Your task to perform on an android device: delete a single message in the gmail app Image 0: 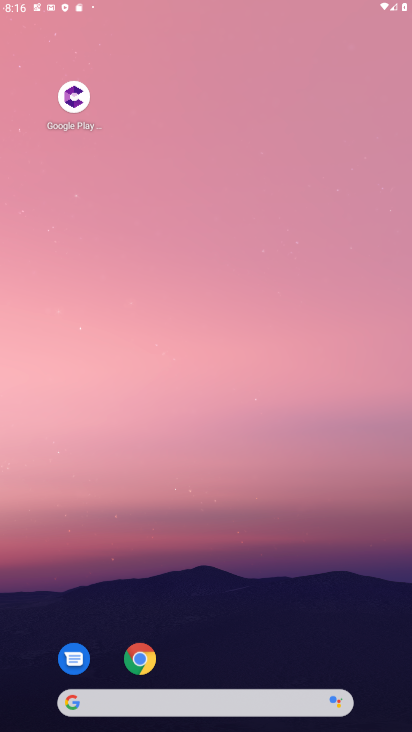
Step 0: click (283, 25)
Your task to perform on an android device: delete a single message in the gmail app Image 1: 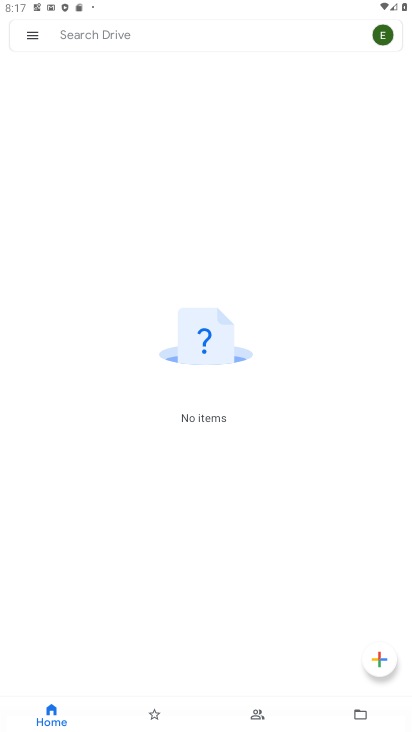
Step 1: press home button
Your task to perform on an android device: delete a single message in the gmail app Image 2: 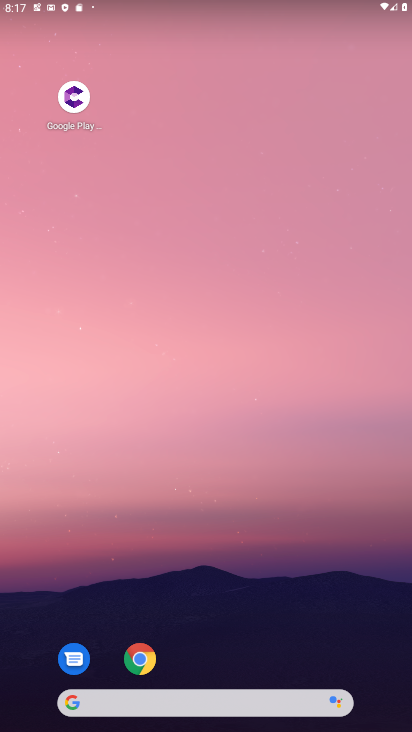
Step 2: drag from (285, 639) to (369, 21)
Your task to perform on an android device: delete a single message in the gmail app Image 3: 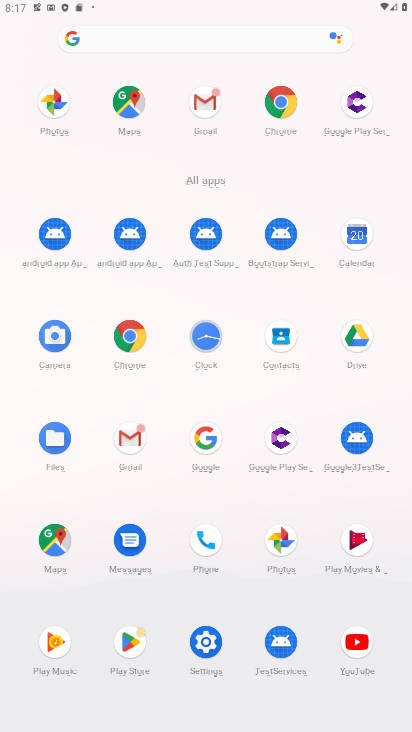
Step 3: click (127, 428)
Your task to perform on an android device: delete a single message in the gmail app Image 4: 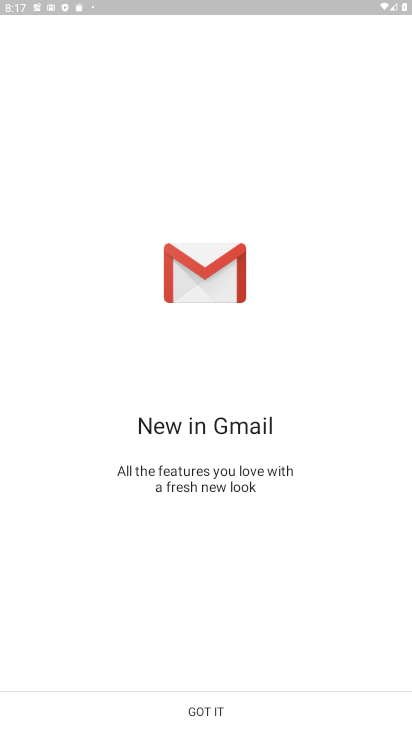
Step 4: click (222, 711)
Your task to perform on an android device: delete a single message in the gmail app Image 5: 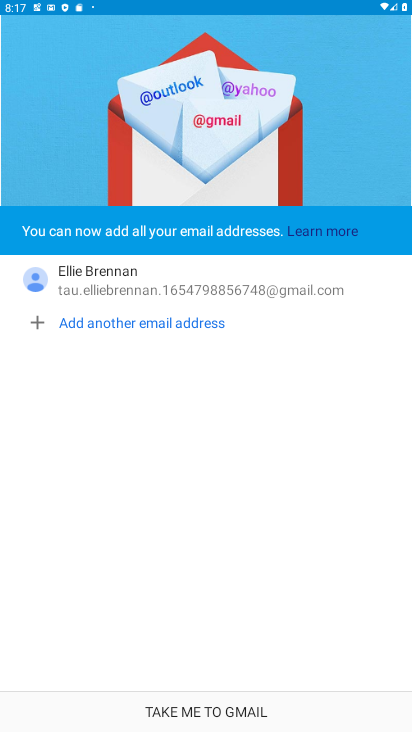
Step 5: click (230, 704)
Your task to perform on an android device: delete a single message in the gmail app Image 6: 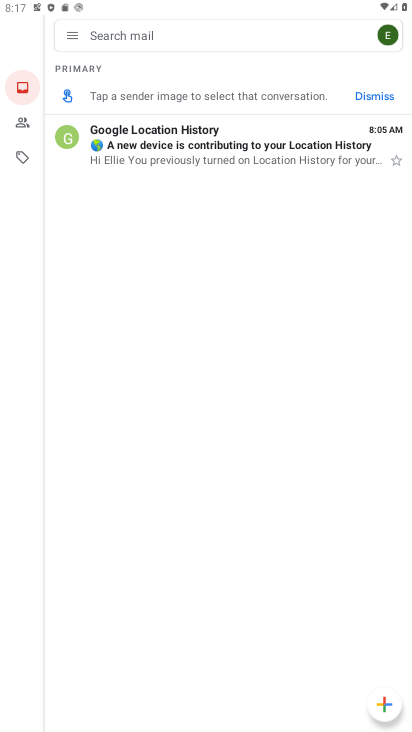
Step 6: click (57, 143)
Your task to perform on an android device: delete a single message in the gmail app Image 7: 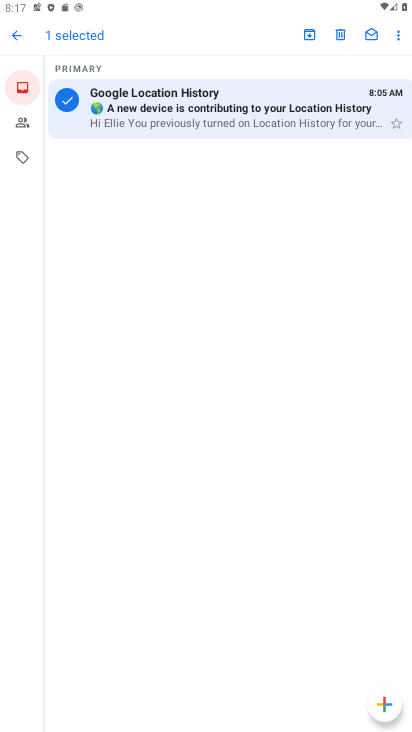
Step 7: click (336, 30)
Your task to perform on an android device: delete a single message in the gmail app Image 8: 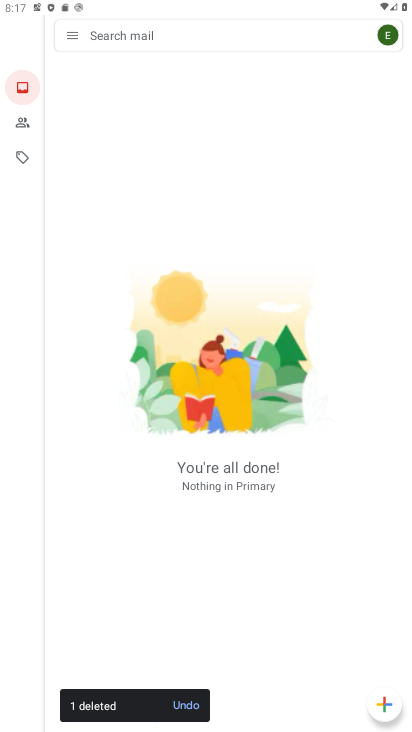
Step 8: task complete